Your task to perform on an android device: open app "ColorNote Notepad Notes" (install if not already installed) and enter user name: "unbridled@gmail.com" and password: "regularly" Image 0: 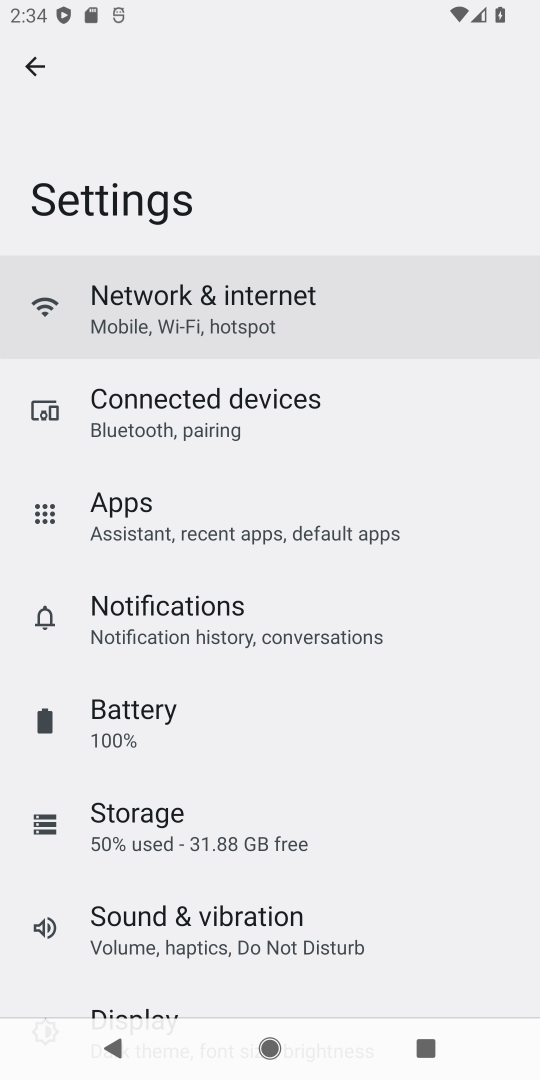
Step 0: press home button
Your task to perform on an android device: open app "ColorNote Notepad Notes" (install if not already installed) and enter user name: "unbridled@gmail.com" and password: "regularly" Image 1: 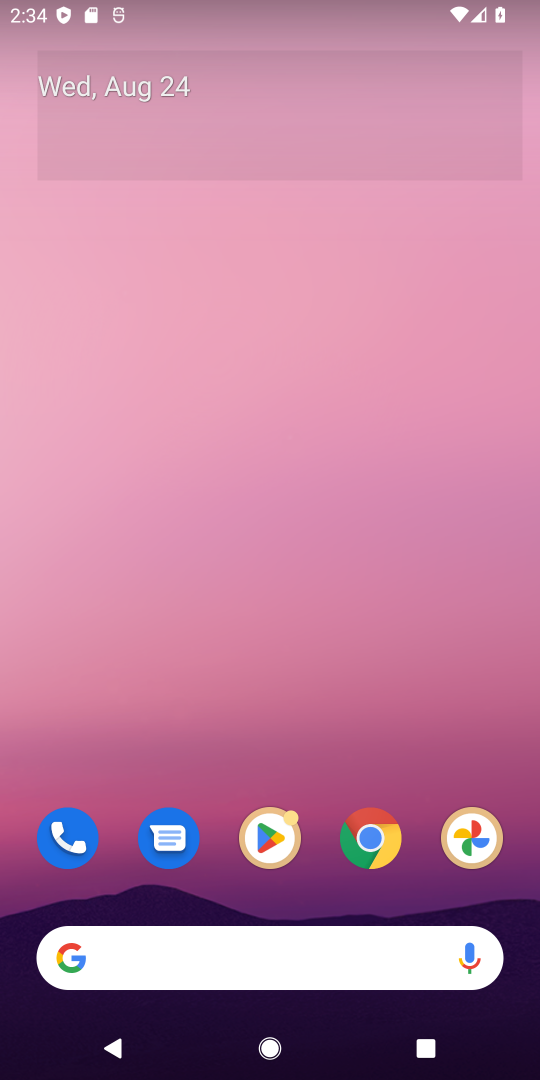
Step 1: drag from (435, 776) to (450, 160)
Your task to perform on an android device: open app "ColorNote Notepad Notes" (install if not already installed) and enter user name: "unbridled@gmail.com" and password: "regularly" Image 2: 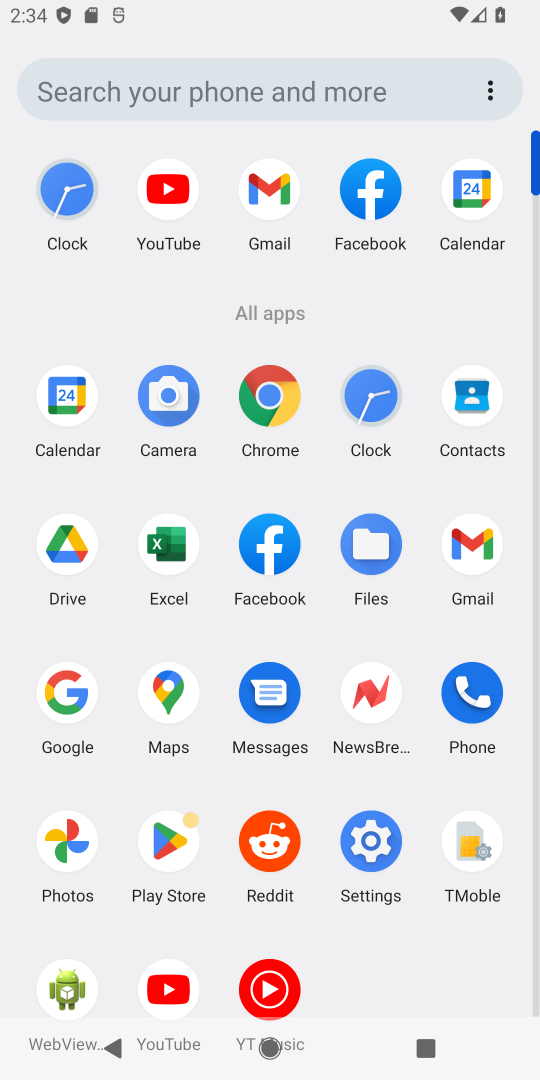
Step 2: click (168, 843)
Your task to perform on an android device: open app "ColorNote Notepad Notes" (install if not already installed) and enter user name: "unbridled@gmail.com" and password: "regularly" Image 3: 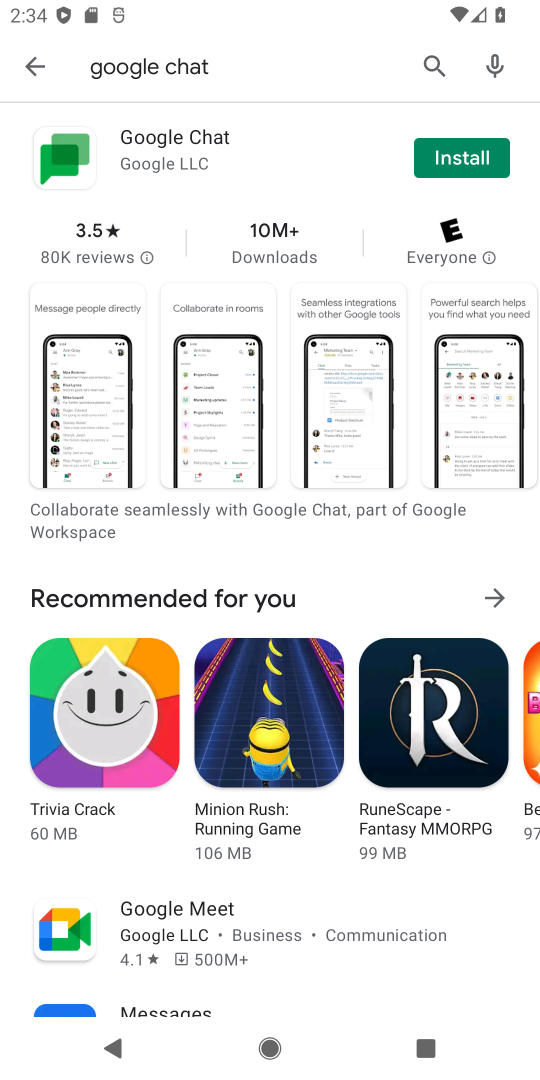
Step 3: press back button
Your task to perform on an android device: open app "ColorNote Notepad Notes" (install if not already installed) and enter user name: "unbridled@gmail.com" and password: "regularly" Image 4: 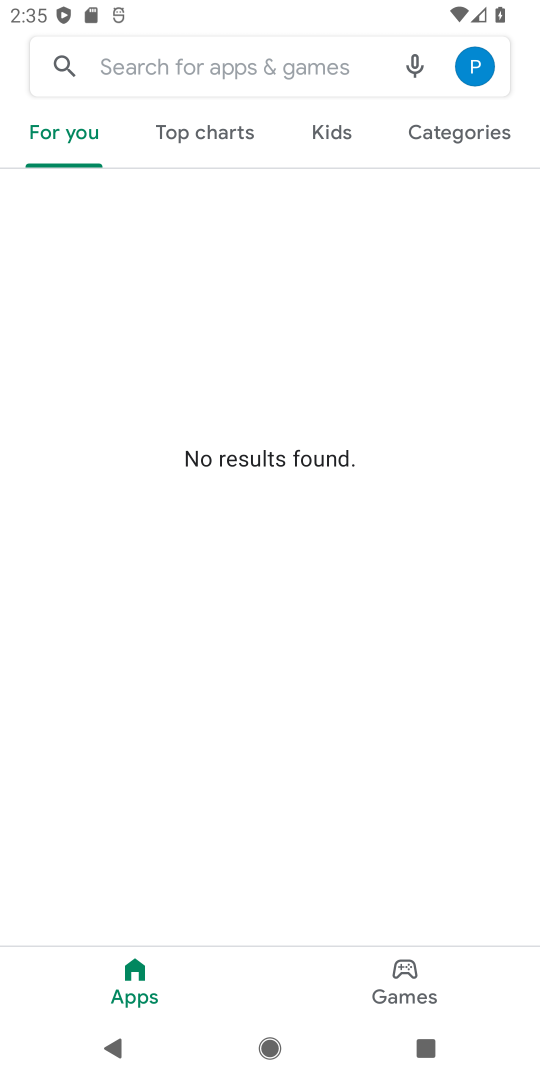
Step 4: click (269, 66)
Your task to perform on an android device: open app "ColorNote Notepad Notes" (install if not already installed) and enter user name: "unbridled@gmail.com" and password: "regularly" Image 5: 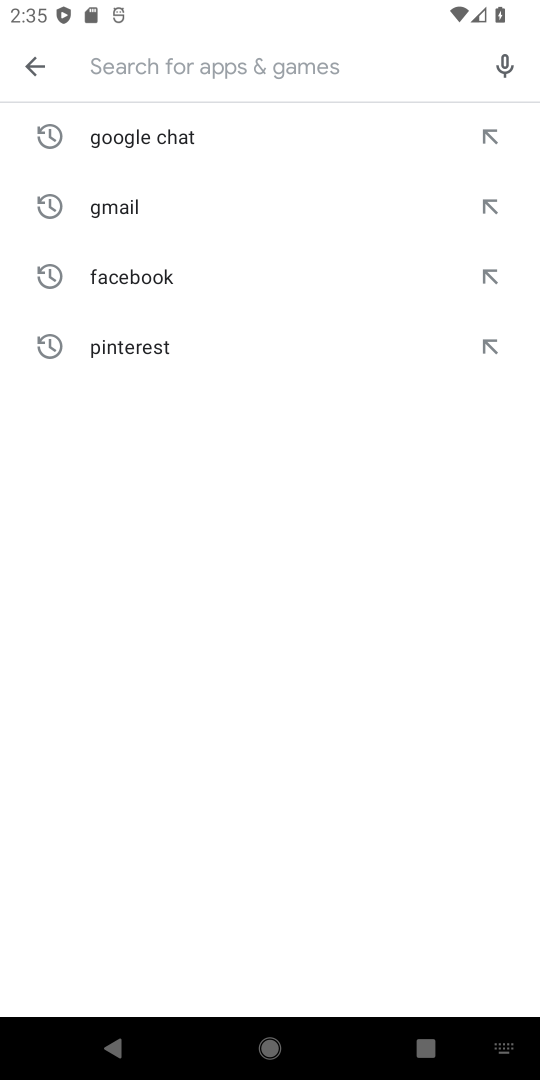
Step 5: type "ColorNote Notepad Notes"
Your task to perform on an android device: open app "ColorNote Notepad Notes" (install if not already installed) and enter user name: "unbridled@gmail.com" and password: "regularly" Image 6: 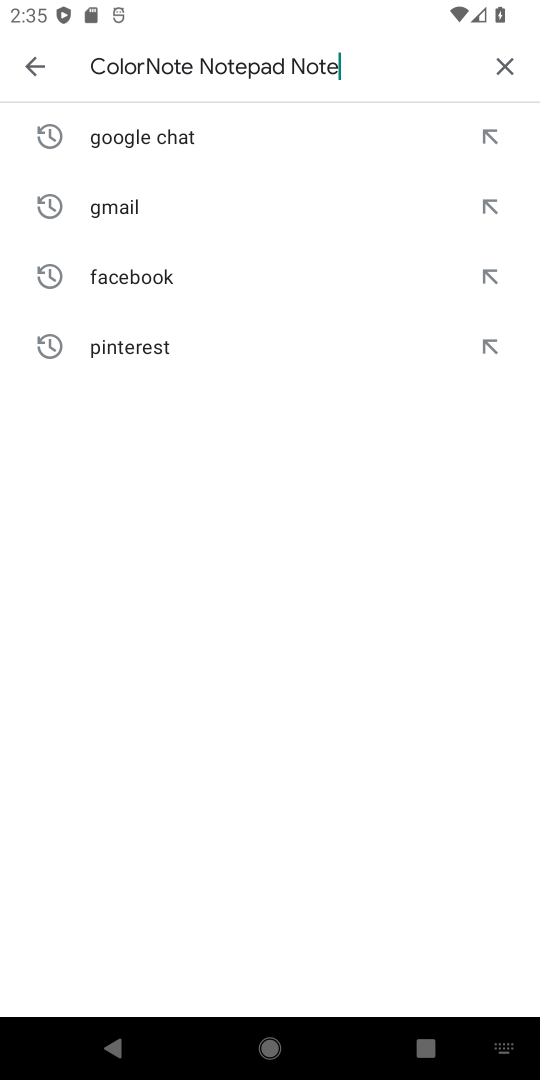
Step 6: press enter
Your task to perform on an android device: open app "ColorNote Notepad Notes" (install if not already installed) and enter user name: "unbridled@gmail.com" and password: "regularly" Image 7: 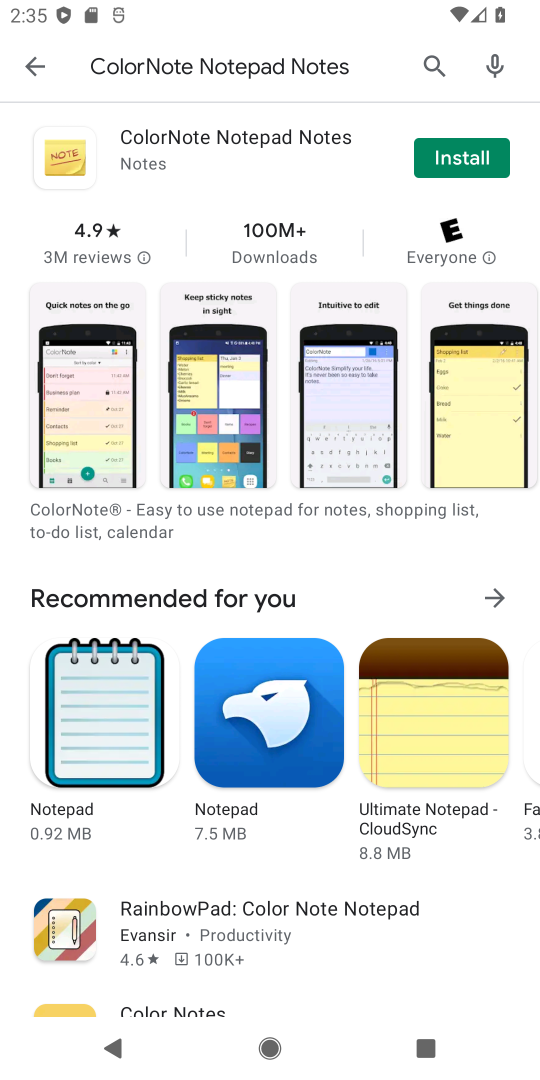
Step 7: click (453, 155)
Your task to perform on an android device: open app "ColorNote Notepad Notes" (install if not already installed) and enter user name: "unbridled@gmail.com" and password: "regularly" Image 8: 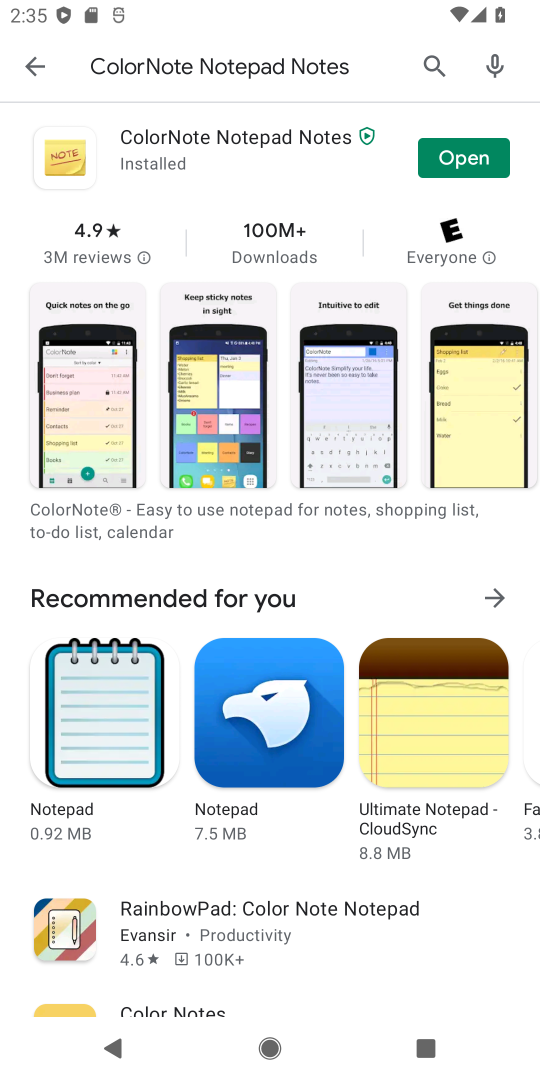
Step 8: click (471, 159)
Your task to perform on an android device: open app "ColorNote Notepad Notes" (install if not already installed) and enter user name: "unbridled@gmail.com" and password: "regularly" Image 9: 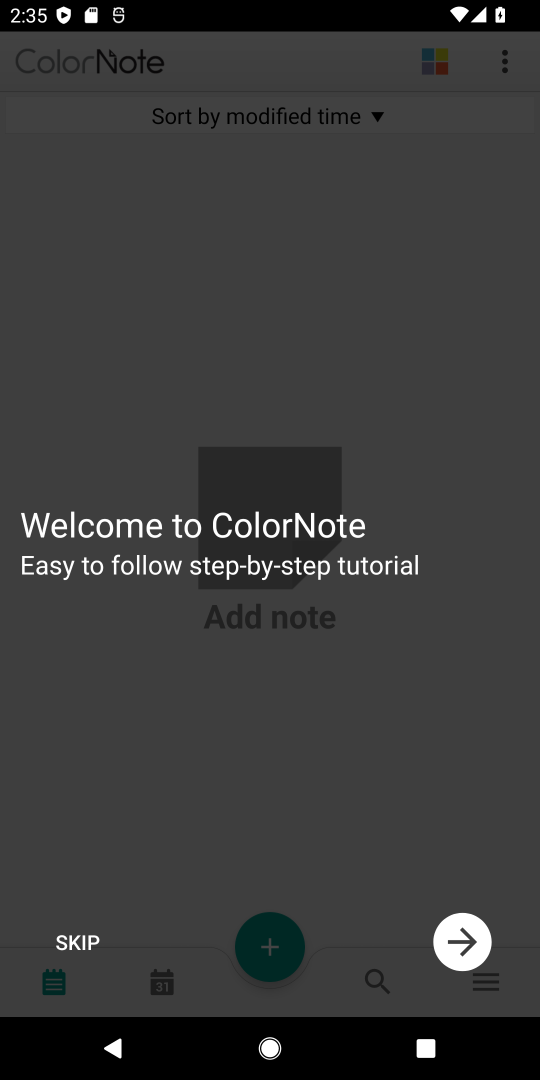
Step 9: click (469, 959)
Your task to perform on an android device: open app "ColorNote Notepad Notes" (install if not already installed) and enter user name: "unbridled@gmail.com" and password: "regularly" Image 10: 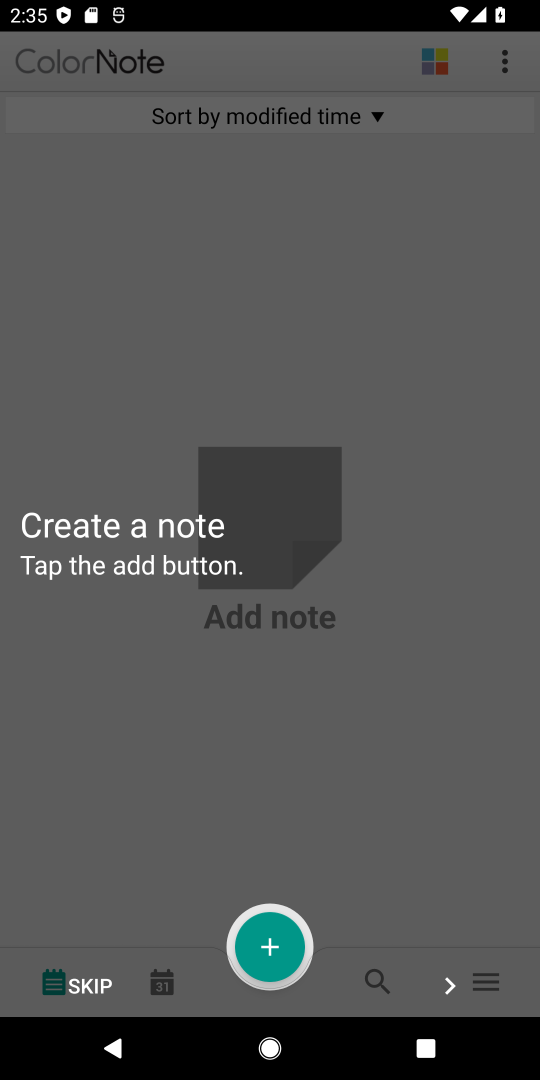
Step 10: click (458, 988)
Your task to perform on an android device: open app "ColorNote Notepad Notes" (install if not already installed) and enter user name: "unbridled@gmail.com" and password: "regularly" Image 11: 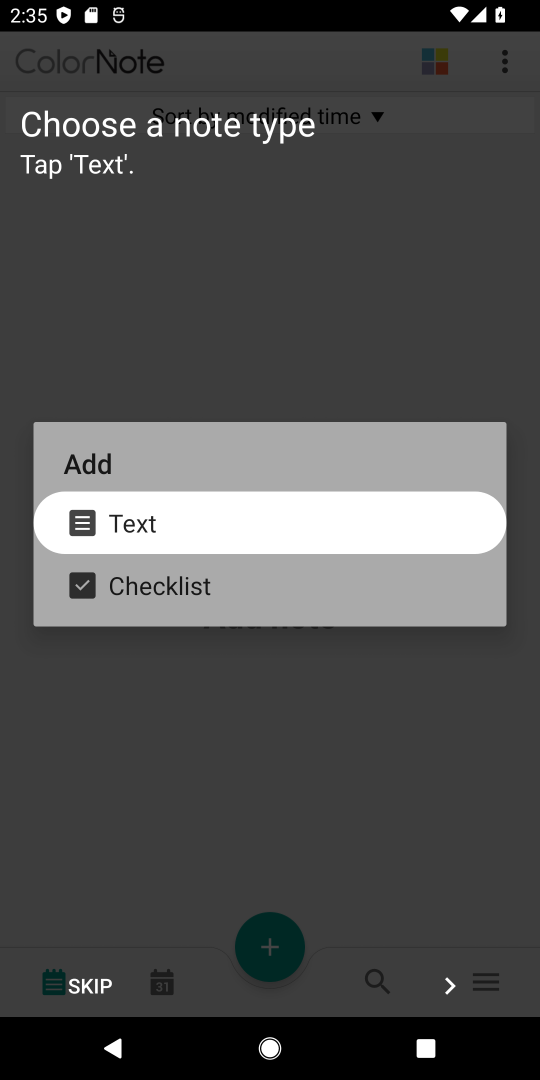
Step 11: click (92, 981)
Your task to perform on an android device: open app "ColorNote Notepad Notes" (install if not already installed) and enter user name: "unbridled@gmail.com" and password: "regularly" Image 12: 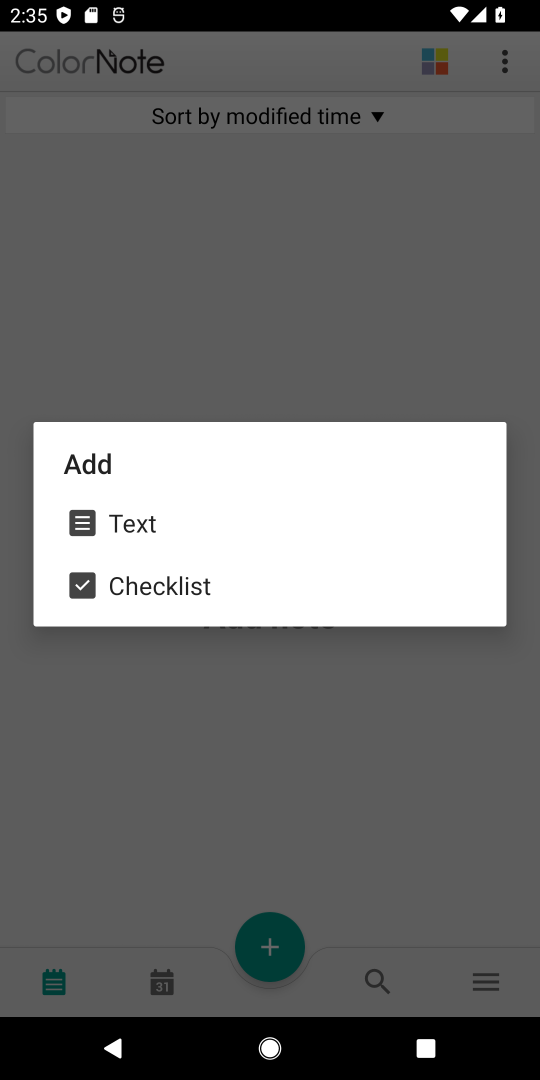
Step 12: click (92, 981)
Your task to perform on an android device: open app "ColorNote Notepad Notes" (install if not already installed) and enter user name: "unbridled@gmail.com" and password: "regularly" Image 13: 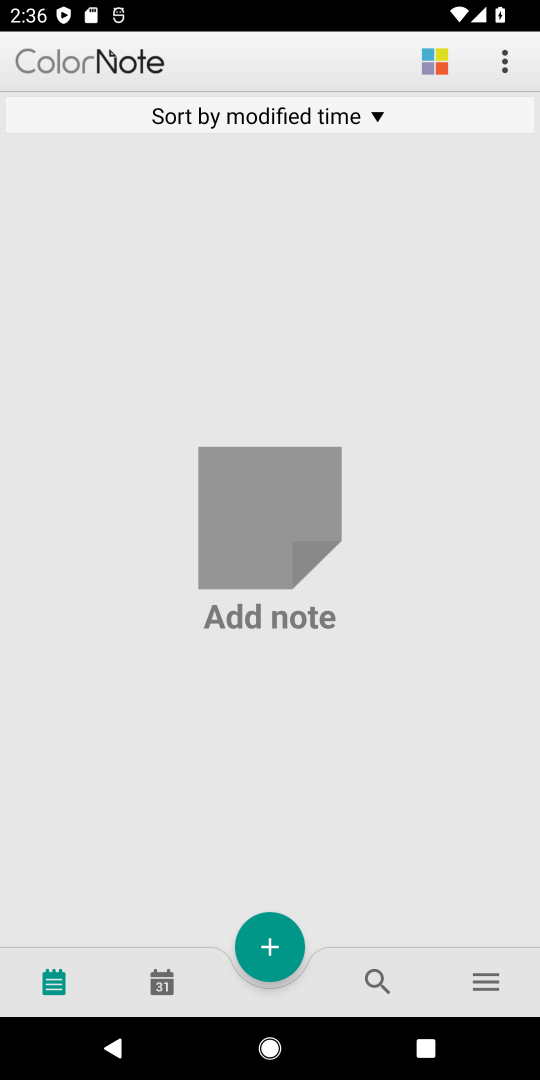
Step 13: click (506, 63)
Your task to perform on an android device: open app "ColorNote Notepad Notes" (install if not already installed) and enter user name: "unbridled@gmail.com" and password: "regularly" Image 14: 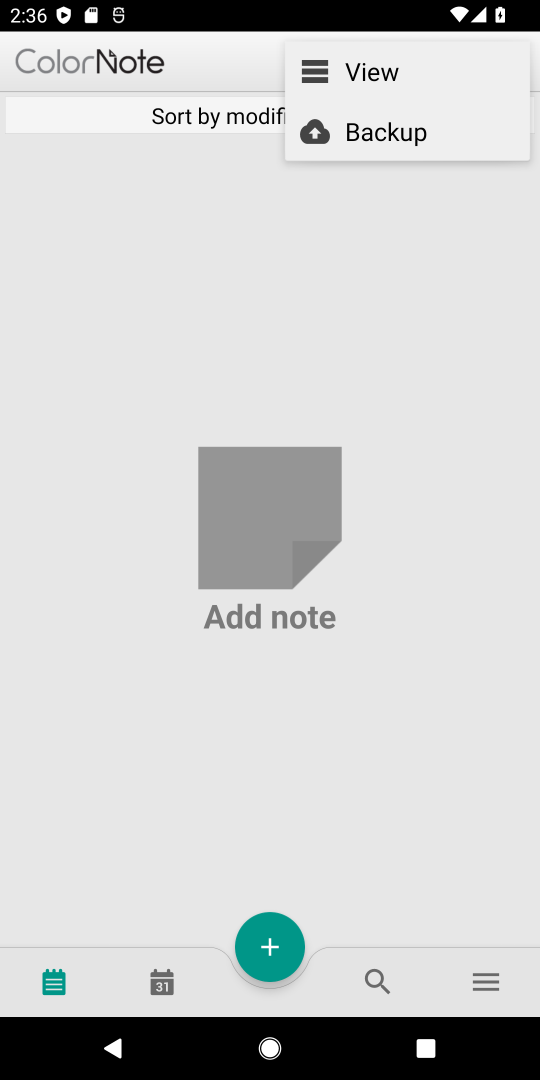
Step 14: click (418, 400)
Your task to perform on an android device: open app "ColorNote Notepad Notes" (install if not already installed) and enter user name: "unbridled@gmail.com" and password: "regularly" Image 15: 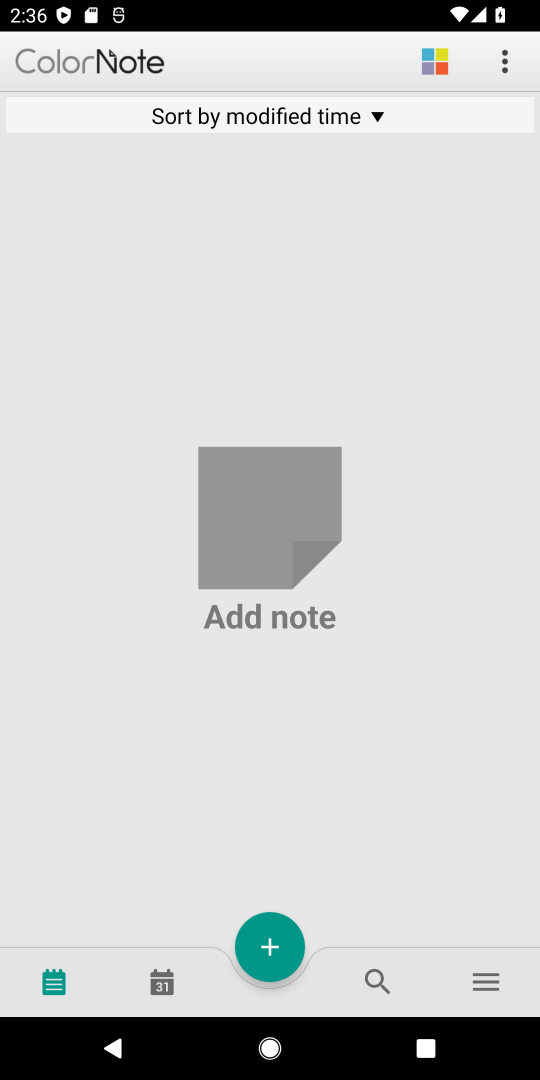
Step 15: click (476, 985)
Your task to perform on an android device: open app "ColorNote Notepad Notes" (install if not already installed) and enter user name: "unbridled@gmail.com" and password: "regularly" Image 16: 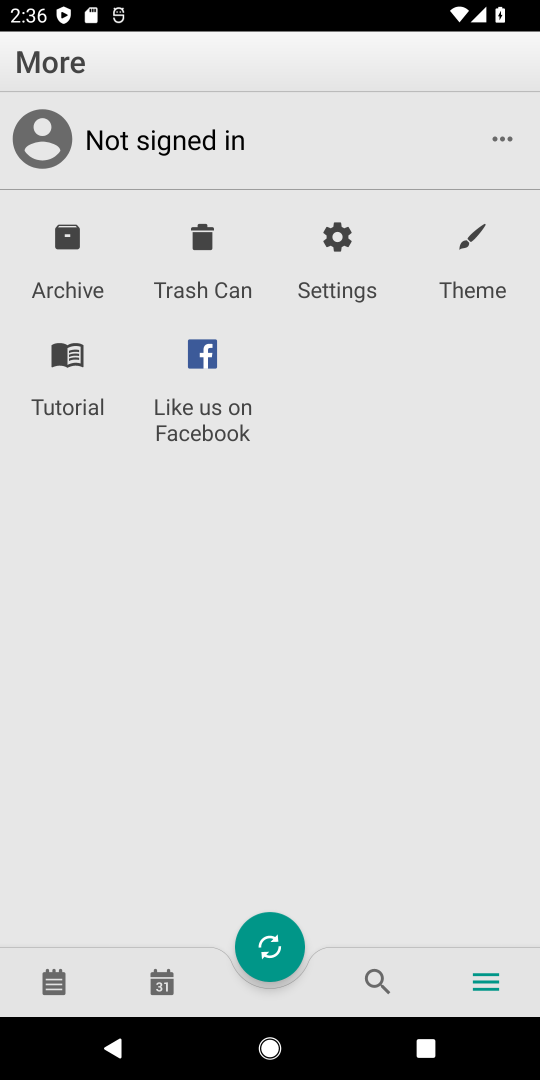
Step 16: click (494, 135)
Your task to perform on an android device: open app "ColorNote Notepad Notes" (install if not already installed) and enter user name: "unbridled@gmail.com" and password: "regularly" Image 17: 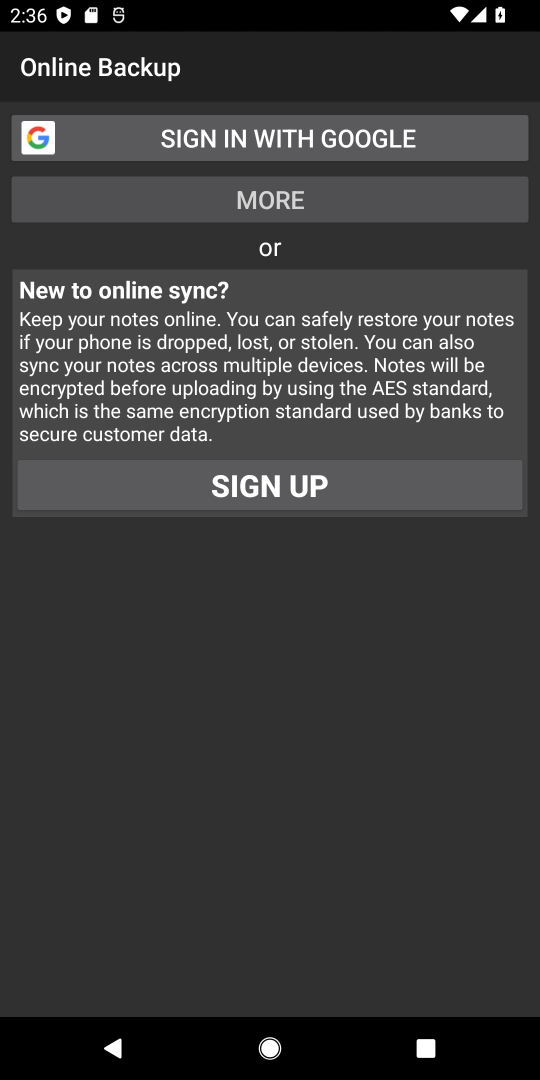
Step 17: click (323, 201)
Your task to perform on an android device: open app "ColorNote Notepad Notes" (install if not already installed) and enter user name: "unbridled@gmail.com" and password: "regularly" Image 18: 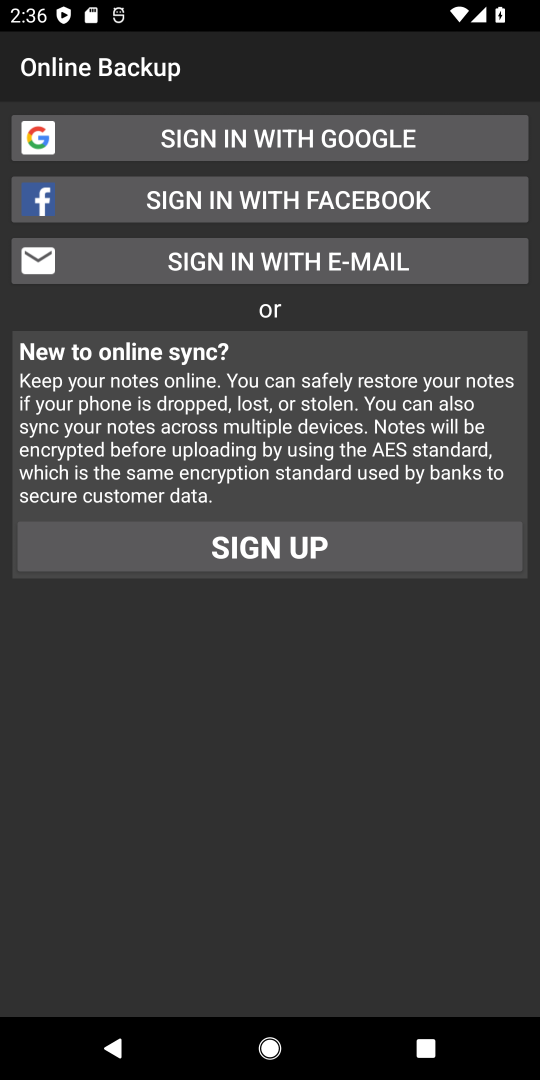
Step 18: click (280, 270)
Your task to perform on an android device: open app "ColorNote Notepad Notes" (install if not already installed) and enter user name: "unbridled@gmail.com" and password: "regularly" Image 19: 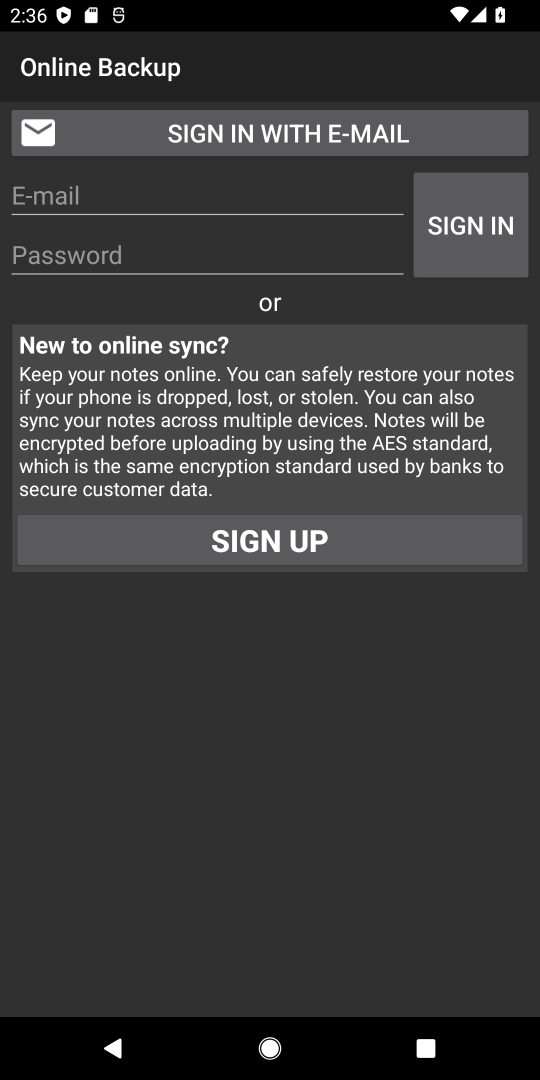
Step 19: click (234, 199)
Your task to perform on an android device: open app "ColorNote Notepad Notes" (install if not already installed) and enter user name: "unbridled@gmail.com" and password: "regularly" Image 20: 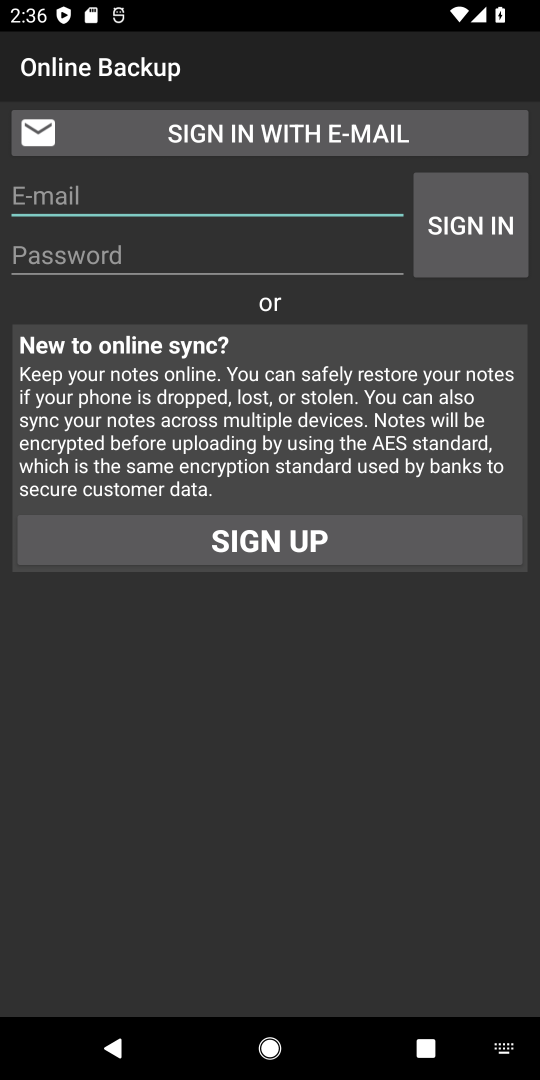
Step 20: press enter
Your task to perform on an android device: open app "ColorNote Notepad Notes" (install if not already installed) and enter user name: "unbridled@gmail.com" and password: "regularly" Image 21: 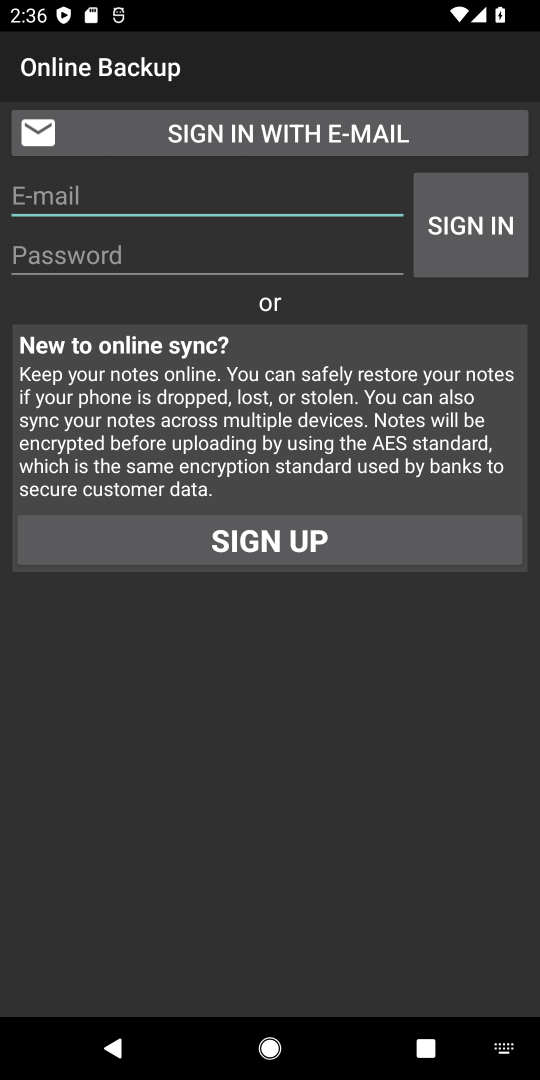
Step 21: type "unbridled@gmail.com"
Your task to perform on an android device: open app "ColorNote Notepad Notes" (install if not already installed) and enter user name: "unbridled@gmail.com" and password: "regularly" Image 22: 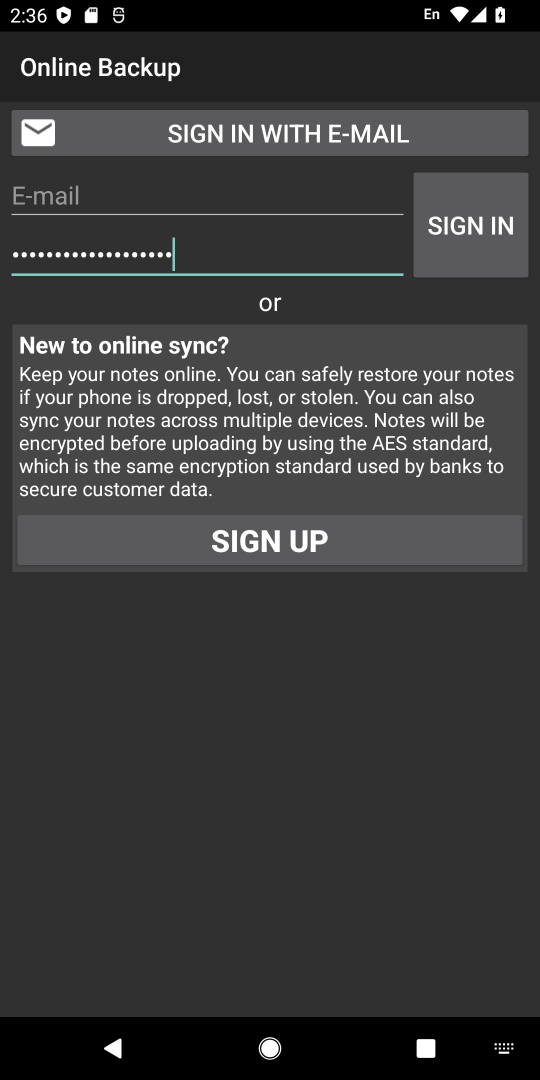
Step 22: press back button
Your task to perform on an android device: open app "ColorNote Notepad Notes" (install if not already installed) and enter user name: "unbridled@gmail.com" and password: "regularly" Image 23: 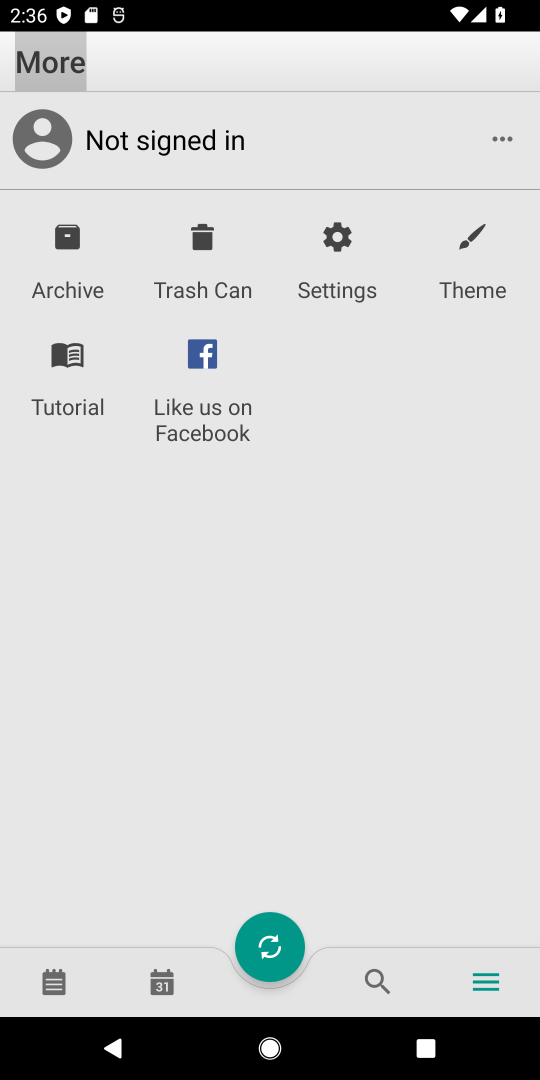
Step 23: click (495, 128)
Your task to perform on an android device: open app "ColorNote Notepad Notes" (install if not already installed) and enter user name: "unbridled@gmail.com" and password: "regularly" Image 24: 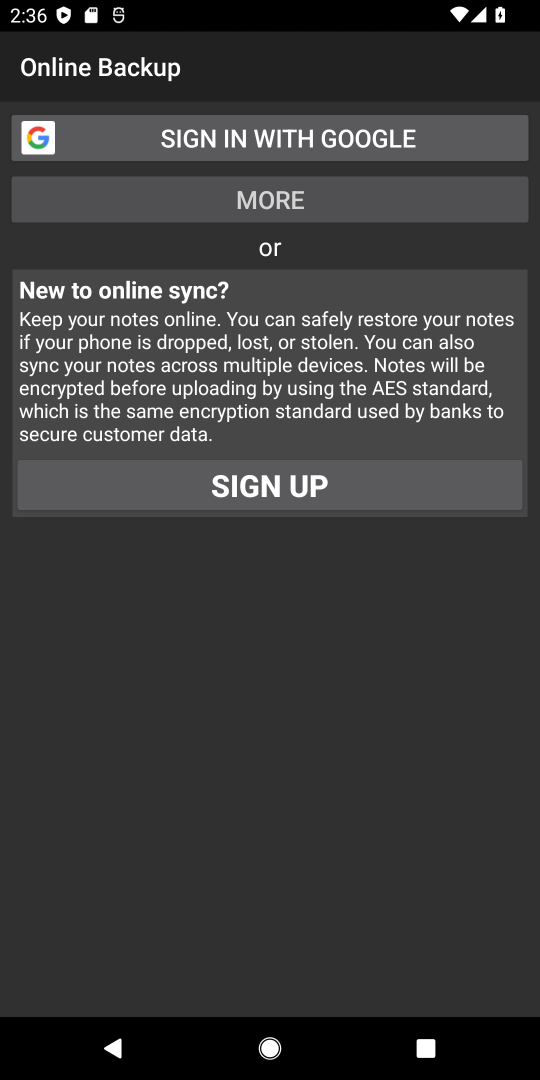
Step 24: click (316, 205)
Your task to perform on an android device: open app "ColorNote Notepad Notes" (install if not already installed) and enter user name: "unbridled@gmail.com" and password: "regularly" Image 25: 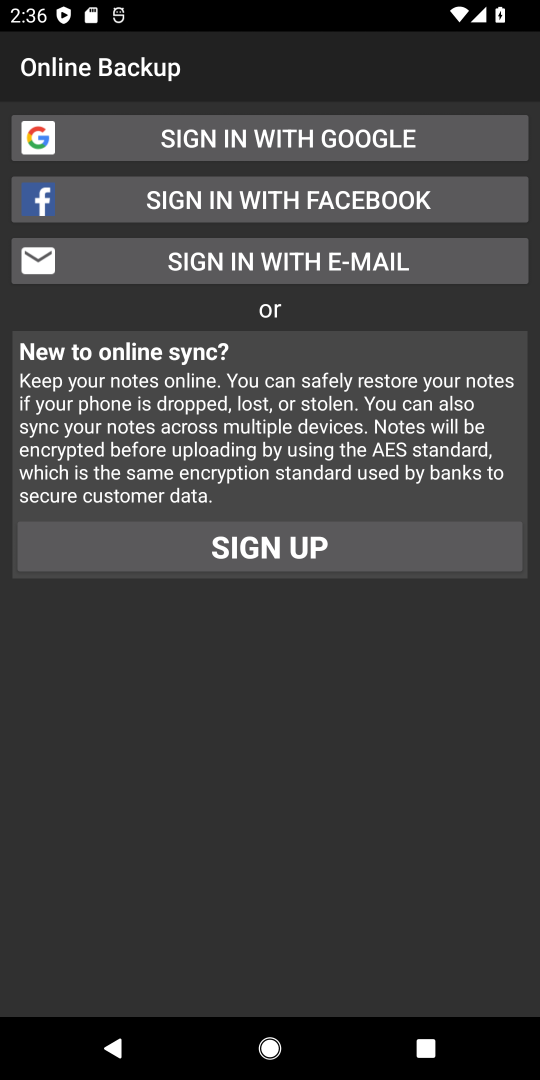
Step 25: click (364, 265)
Your task to perform on an android device: open app "ColorNote Notepad Notes" (install if not already installed) and enter user name: "unbridled@gmail.com" and password: "regularly" Image 26: 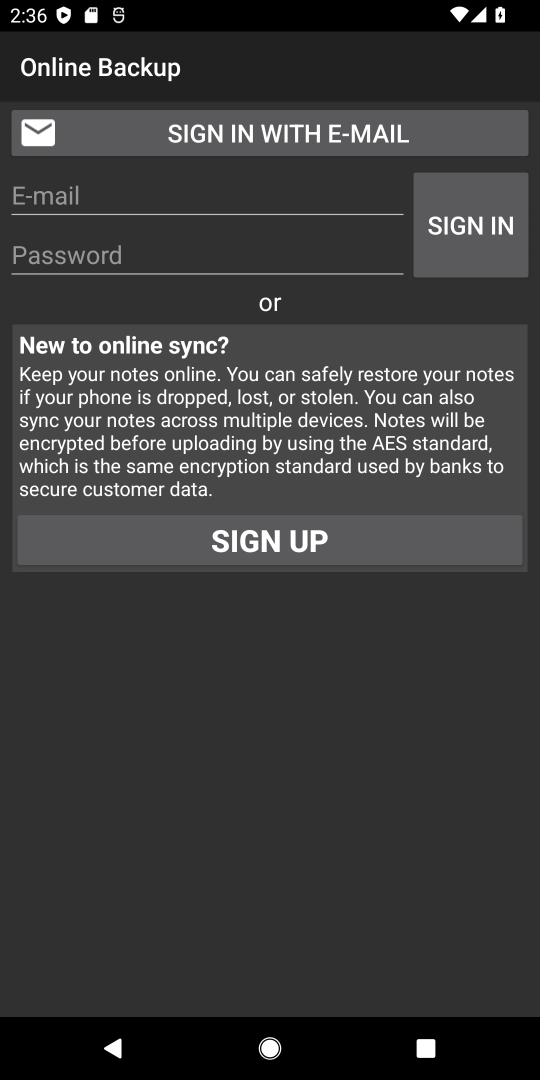
Step 26: click (265, 195)
Your task to perform on an android device: open app "ColorNote Notepad Notes" (install if not already installed) and enter user name: "unbridled@gmail.com" and password: "regularly" Image 27: 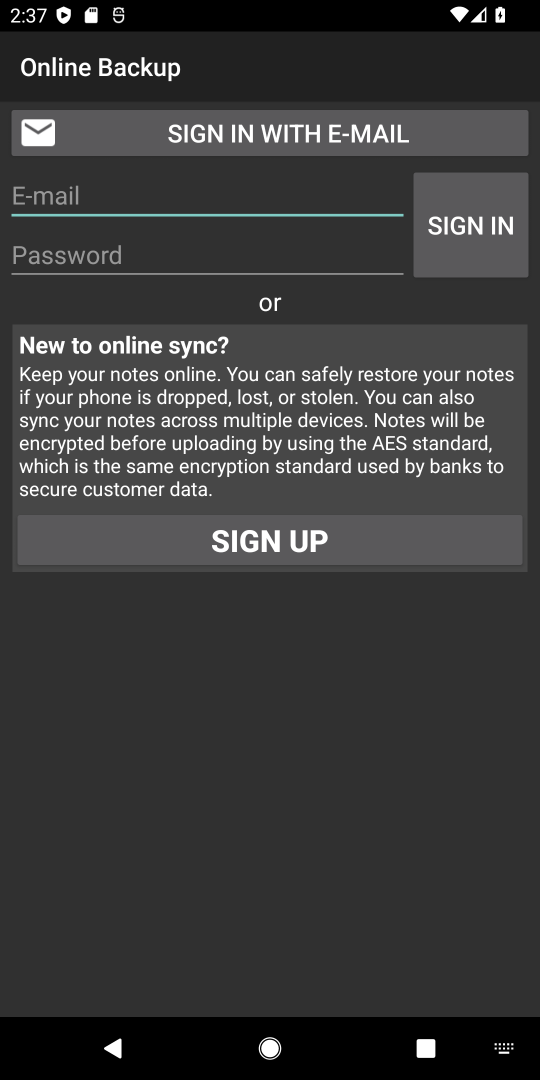
Step 27: type "unbridled@gmail.com"
Your task to perform on an android device: open app "ColorNote Notepad Notes" (install if not already installed) and enter user name: "unbridled@gmail.com" and password: "regularly" Image 28: 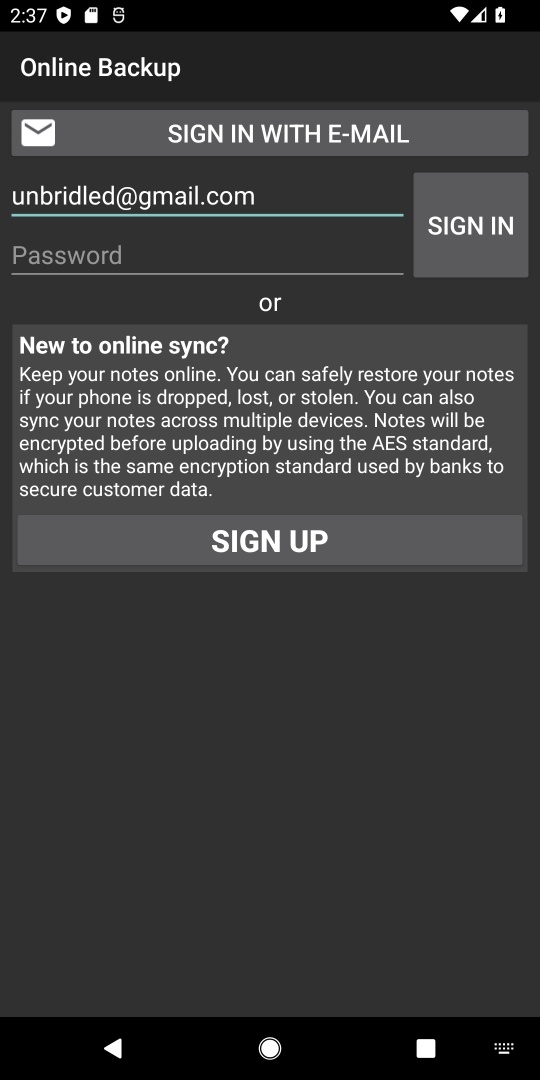
Step 28: click (254, 261)
Your task to perform on an android device: open app "ColorNote Notepad Notes" (install if not already installed) and enter user name: "unbridled@gmail.com" and password: "regularly" Image 29: 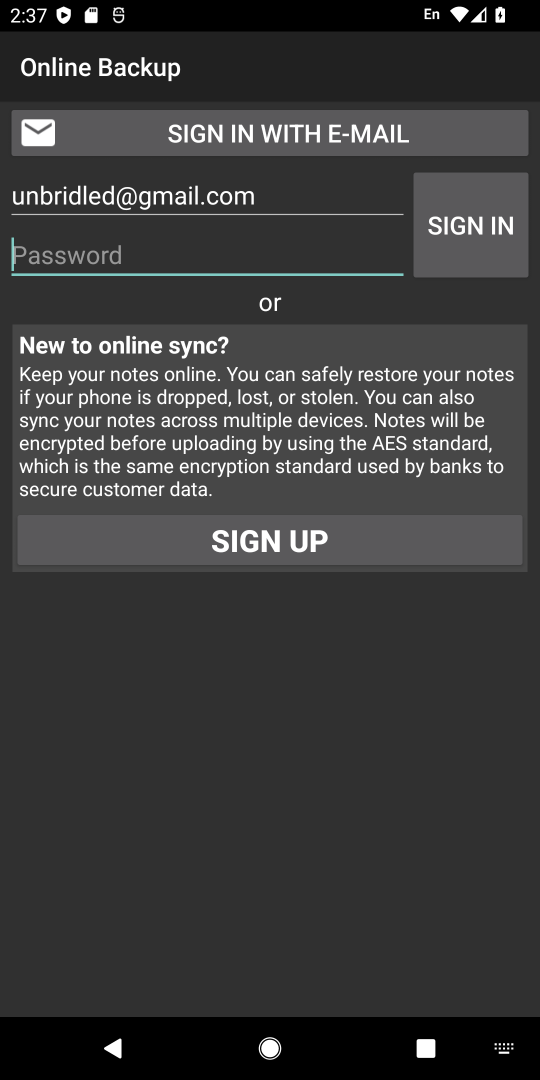
Step 29: type "regularly"
Your task to perform on an android device: open app "ColorNote Notepad Notes" (install if not already installed) and enter user name: "unbridled@gmail.com" and password: "regularly" Image 30: 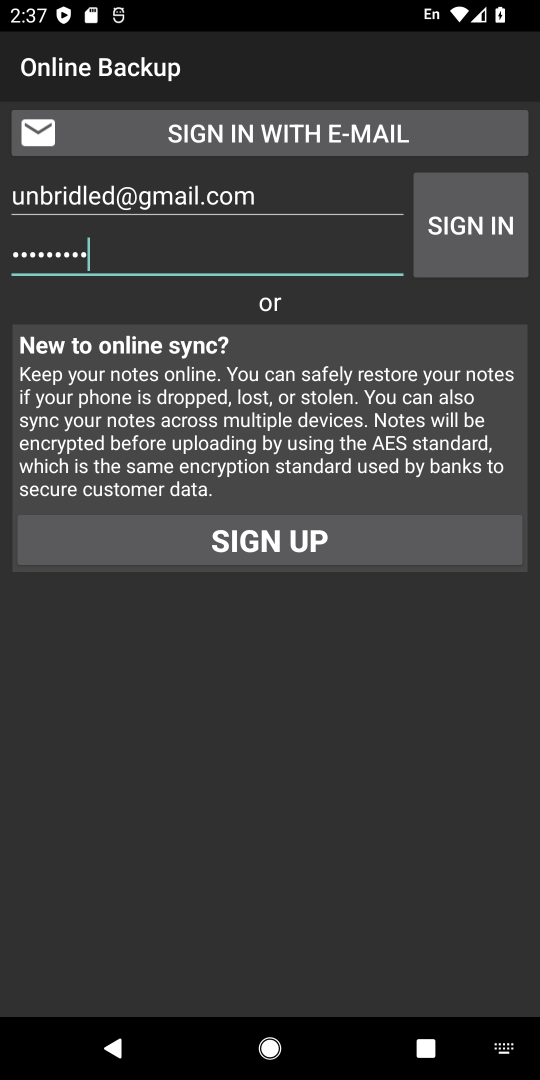
Step 30: task complete